Your task to perform on an android device: Open calendar and show me the first week of next month Image 0: 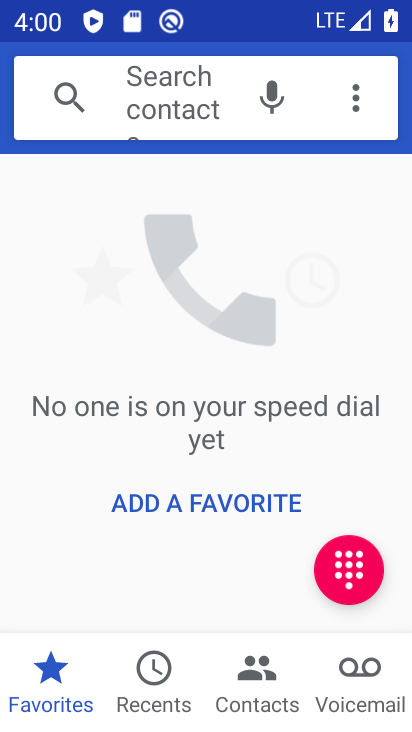
Step 0: press home button
Your task to perform on an android device: Open calendar and show me the first week of next month Image 1: 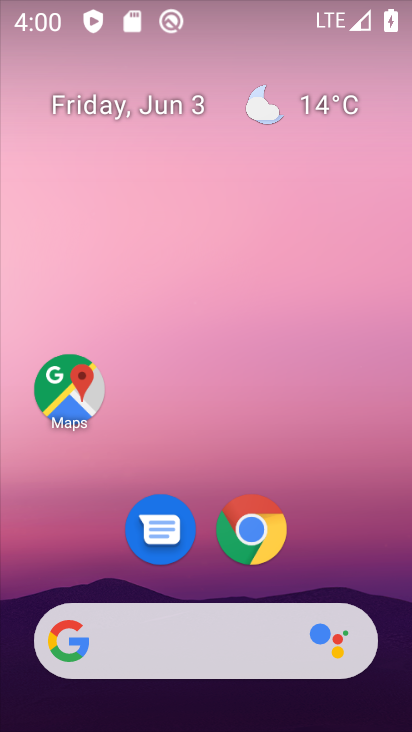
Step 1: drag from (207, 580) to (210, 12)
Your task to perform on an android device: Open calendar and show me the first week of next month Image 2: 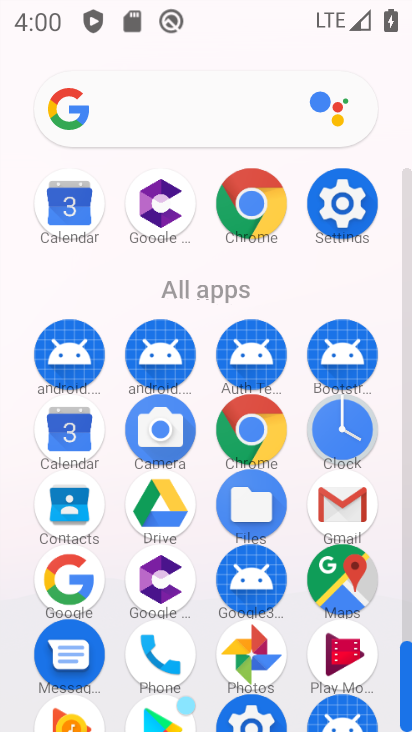
Step 2: click (66, 429)
Your task to perform on an android device: Open calendar and show me the first week of next month Image 3: 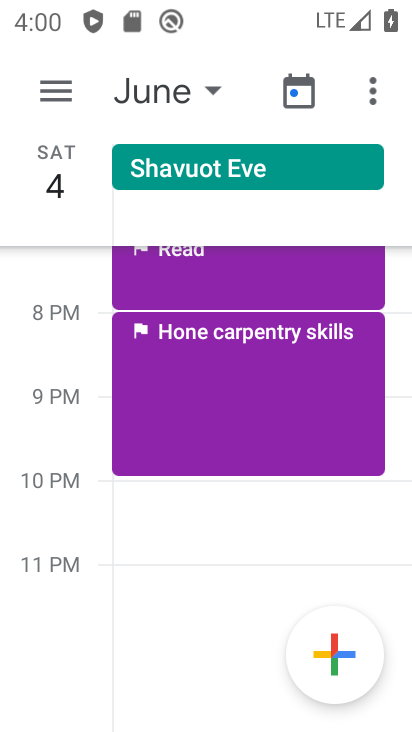
Step 3: click (203, 89)
Your task to perform on an android device: Open calendar and show me the first week of next month Image 4: 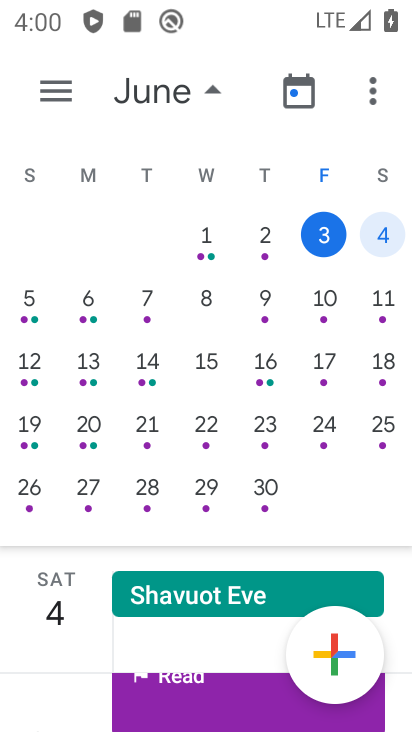
Step 4: click (358, 378)
Your task to perform on an android device: Open calendar and show me the first week of next month Image 5: 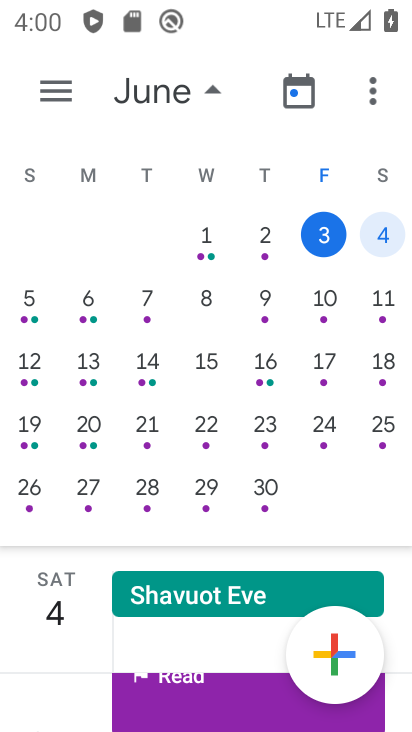
Step 5: drag from (126, 379) to (2, 380)
Your task to perform on an android device: Open calendar and show me the first week of next month Image 6: 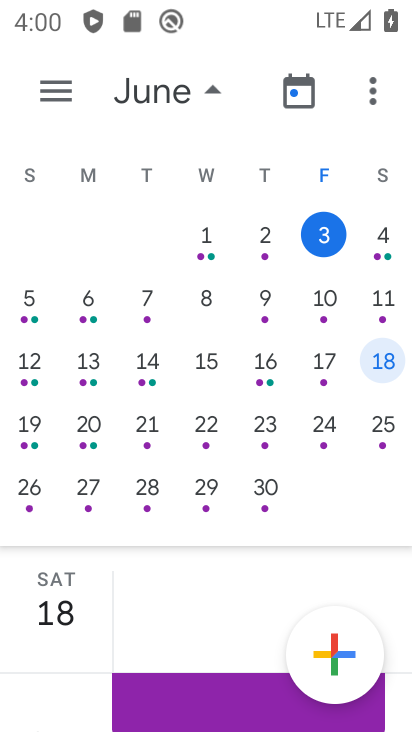
Step 6: drag from (363, 319) to (5, 319)
Your task to perform on an android device: Open calendar and show me the first week of next month Image 7: 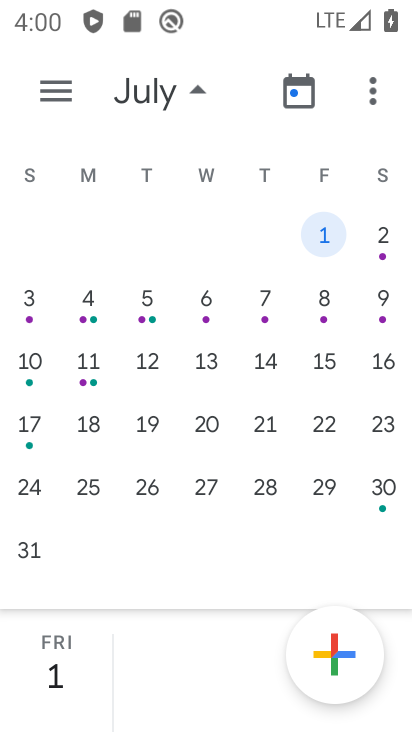
Step 7: click (31, 297)
Your task to perform on an android device: Open calendar and show me the first week of next month Image 8: 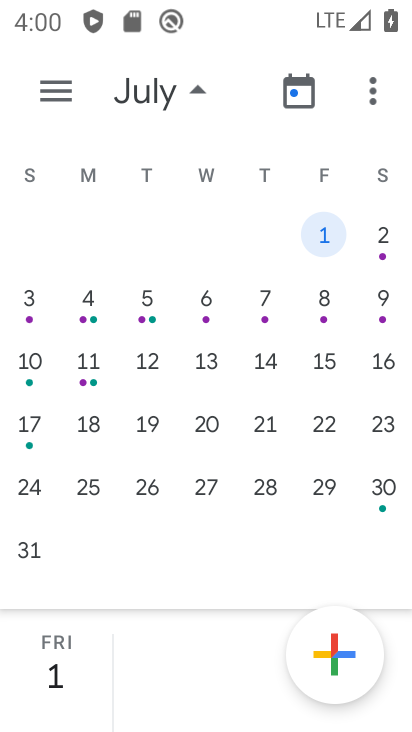
Step 8: click (24, 304)
Your task to perform on an android device: Open calendar and show me the first week of next month Image 9: 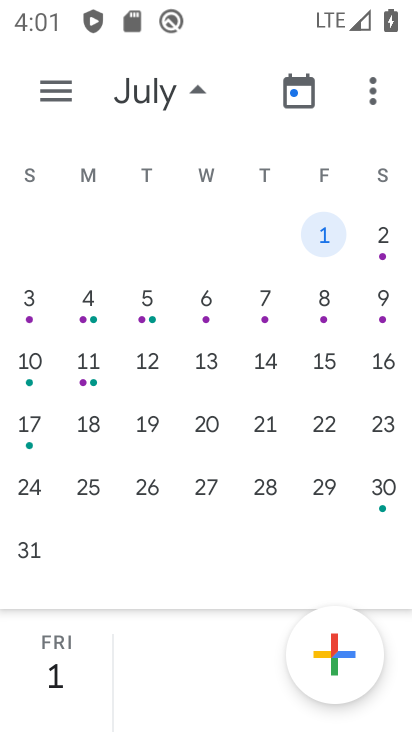
Step 9: click (23, 303)
Your task to perform on an android device: Open calendar and show me the first week of next month Image 10: 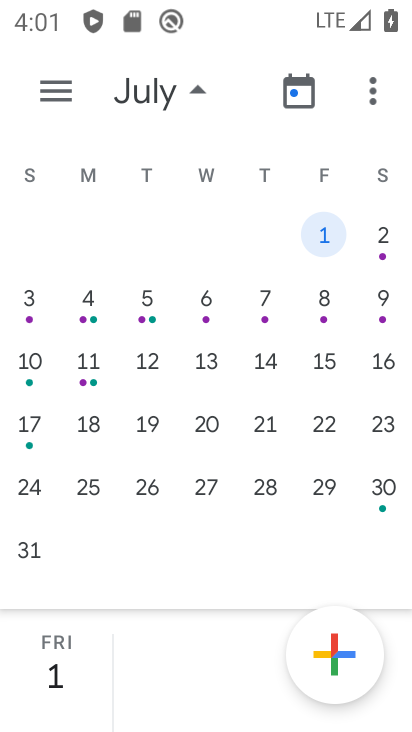
Step 10: click (42, 296)
Your task to perform on an android device: Open calendar and show me the first week of next month Image 11: 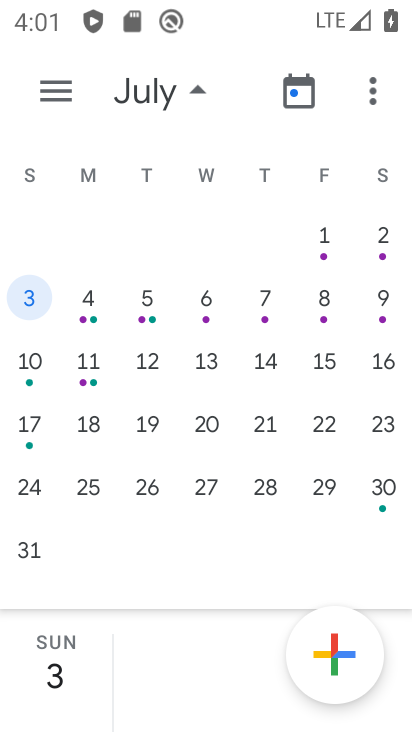
Step 11: click (200, 94)
Your task to perform on an android device: Open calendar and show me the first week of next month Image 12: 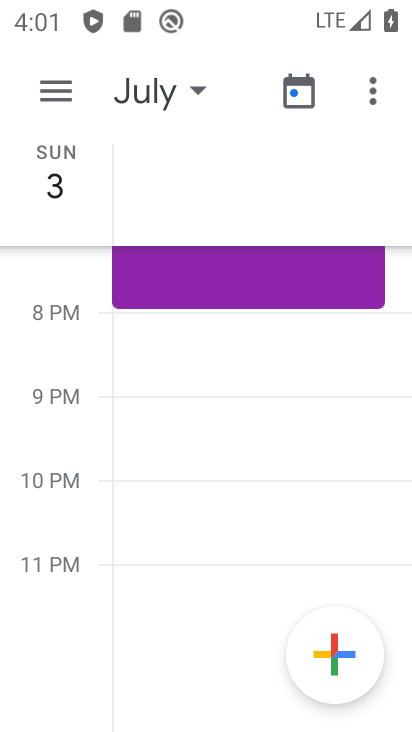
Step 12: click (78, 187)
Your task to perform on an android device: Open calendar and show me the first week of next month Image 13: 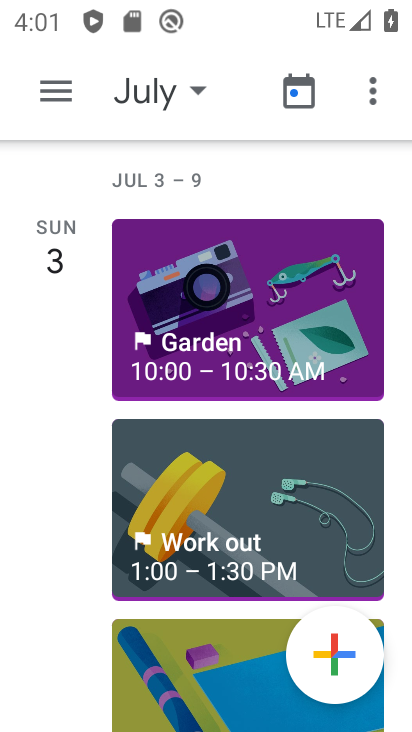
Step 13: task complete